Your task to perform on an android device: toggle airplane mode Image 0: 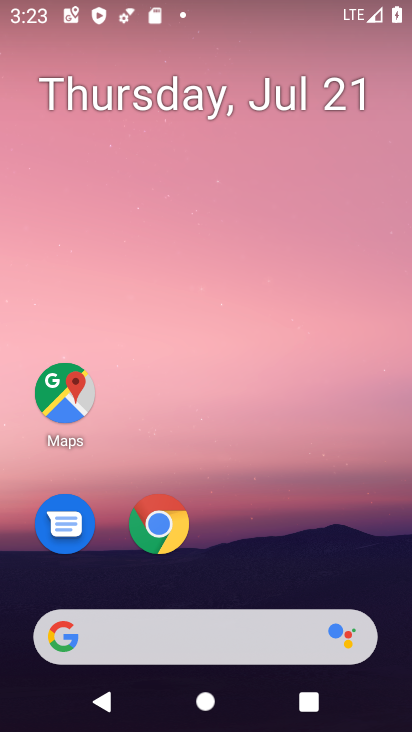
Step 0: drag from (278, 565) to (347, 17)
Your task to perform on an android device: toggle airplane mode Image 1: 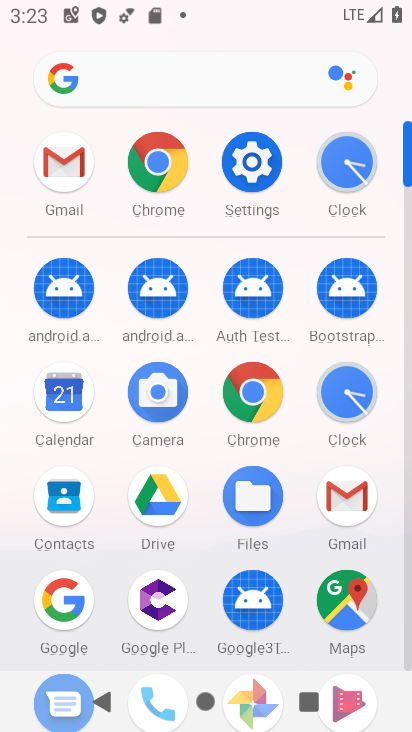
Step 1: click (257, 162)
Your task to perform on an android device: toggle airplane mode Image 2: 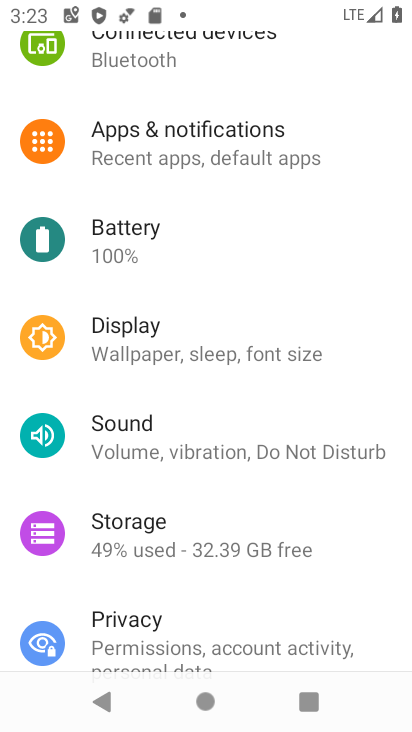
Step 2: drag from (266, 112) to (268, 506)
Your task to perform on an android device: toggle airplane mode Image 3: 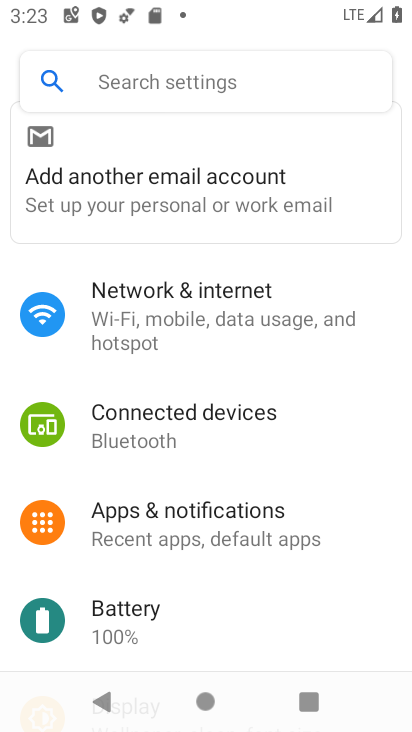
Step 3: click (237, 312)
Your task to perform on an android device: toggle airplane mode Image 4: 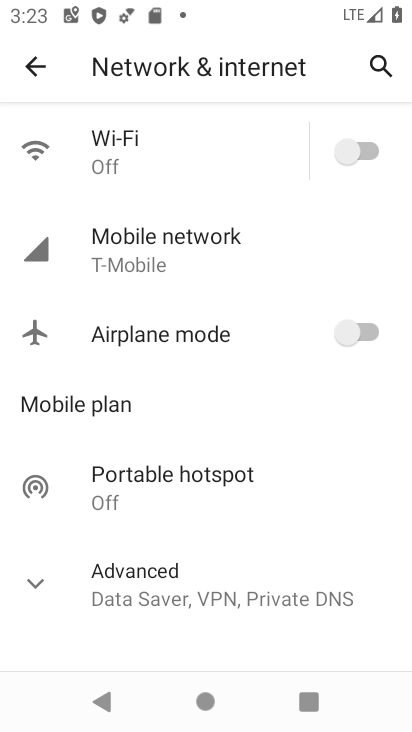
Step 4: click (358, 326)
Your task to perform on an android device: toggle airplane mode Image 5: 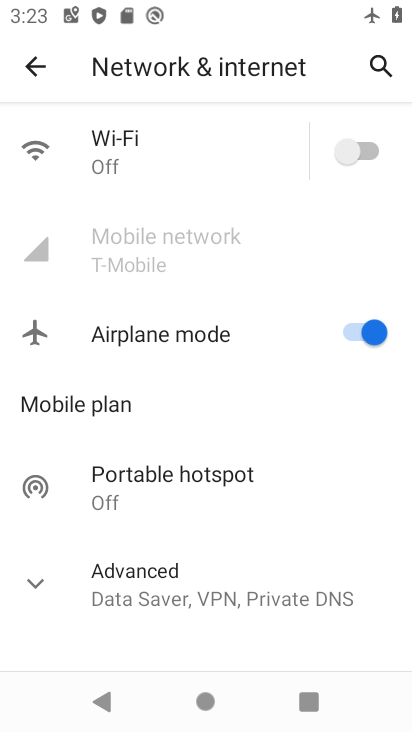
Step 5: task complete